Your task to perform on an android device: snooze an email in the gmail app Image 0: 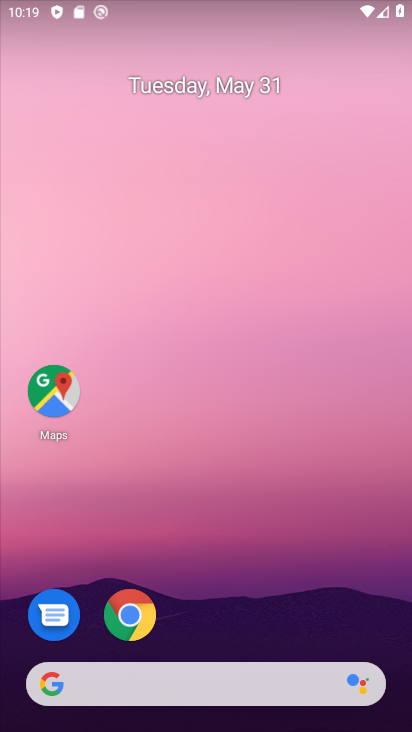
Step 0: drag from (338, 618) to (394, 129)
Your task to perform on an android device: snooze an email in the gmail app Image 1: 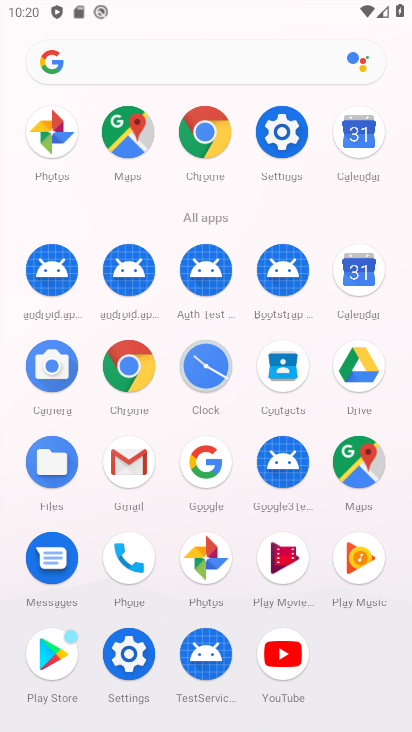
Step 1: click (141, 474)
Your task to perform on an android device: snooze an email in the gmail app Image 2: 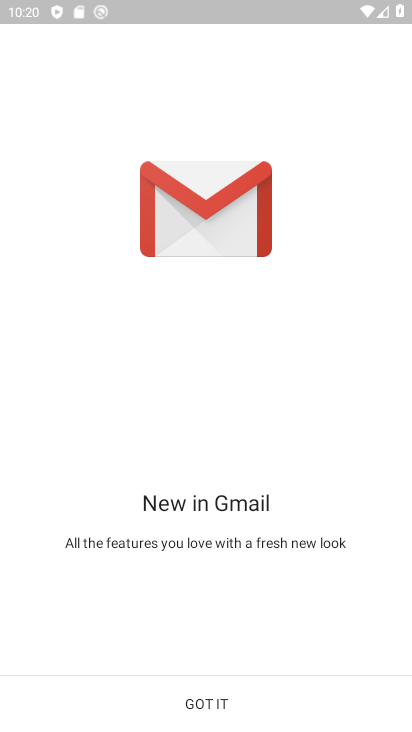
Step 2: click (217, 722)
Your task to perform on an android device: snooze an email in the gmail app Image 3: 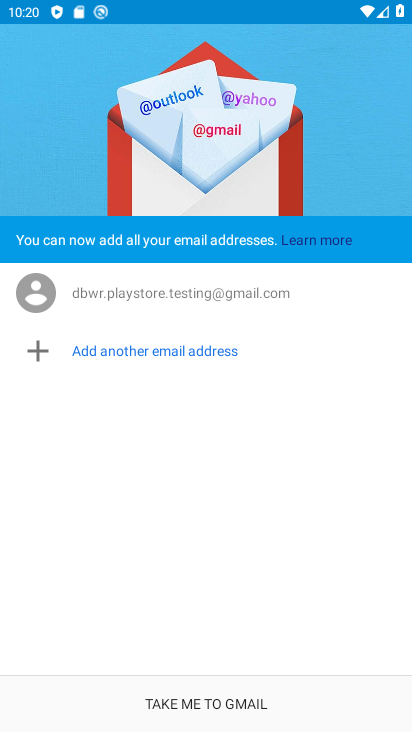
Step 3: click (225, 714)
Your task to perform on an android device: snooze an email in the gmail app Image 4: 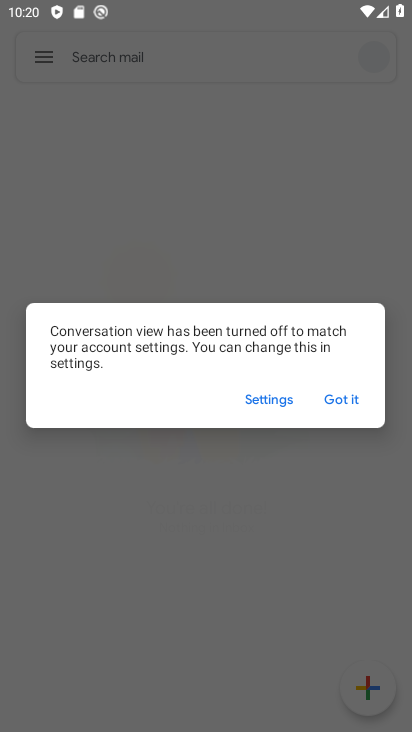
Step 4: click (349, 397)
Your task to perform on an android device: snooze an email in the gmail app Image 5: 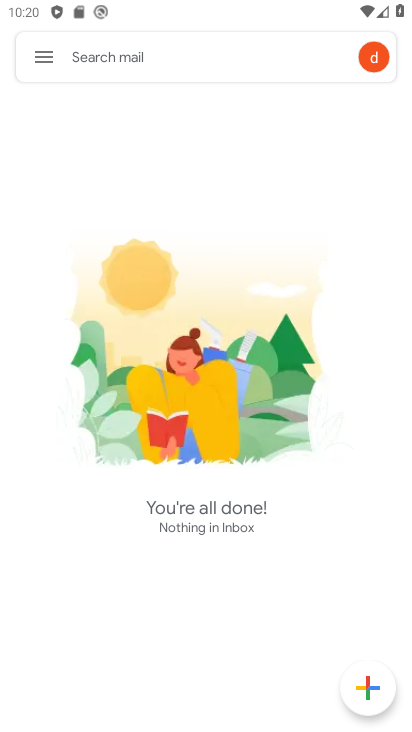
Step 5: drag from (48, 46) to (75, 149)
Your task to perform on an android device: snooze an email in the gmail app Image 6: 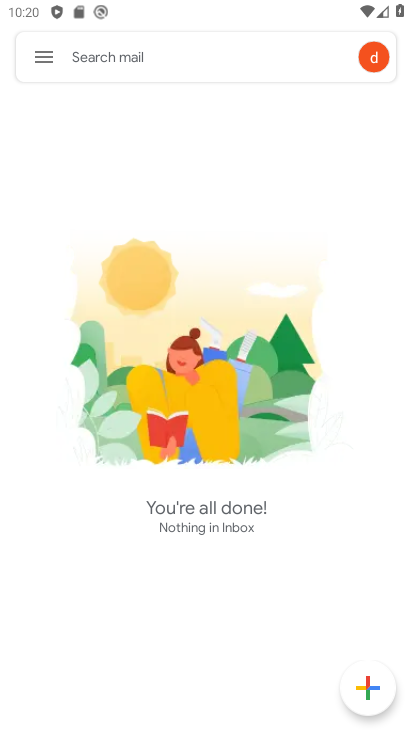
Step 6: click (60, 67)
Your task to perform on an android device: snooze an email in the gmail app Image 7: 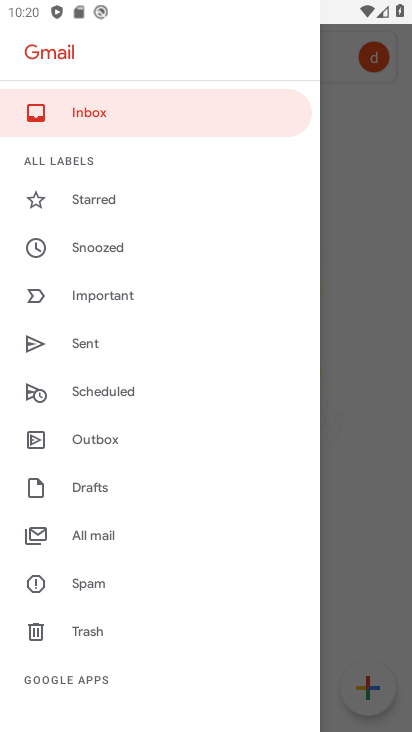
Step 7: click (108, 251)
Your task to perform on an android device: snooze an email in the gmail app Image 8: 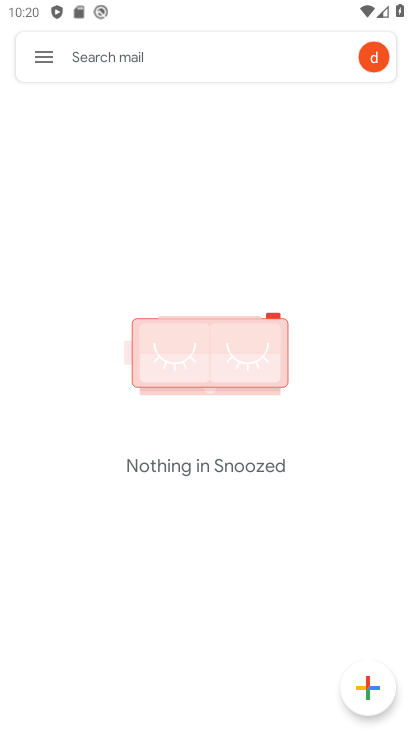
Step 8: task complete